Your task to perform on an android device: Go to settings Image 0: 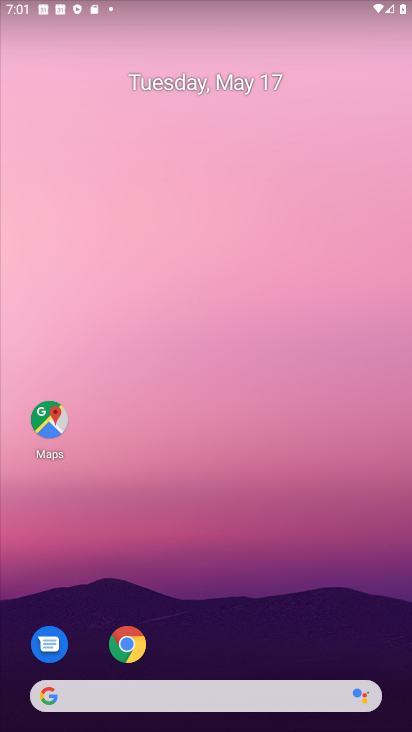
Step 0: drag from (307, 608) to (312, 31)
Your task to perform on an android device: Go to settings Image 1: 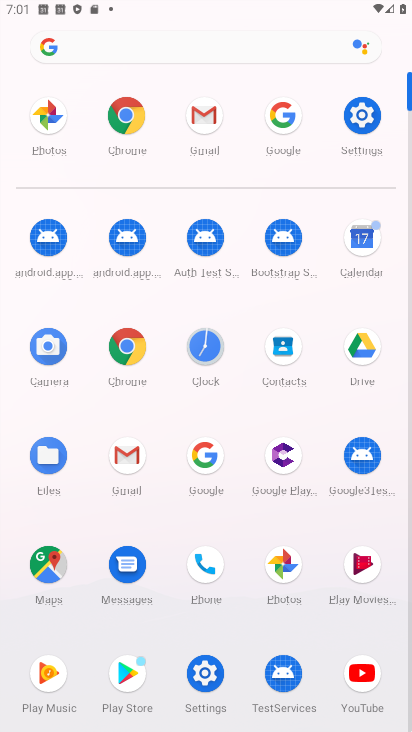
Step 1: click (218, 676)
Your task to perform on an android device: Go to settings Image 2: 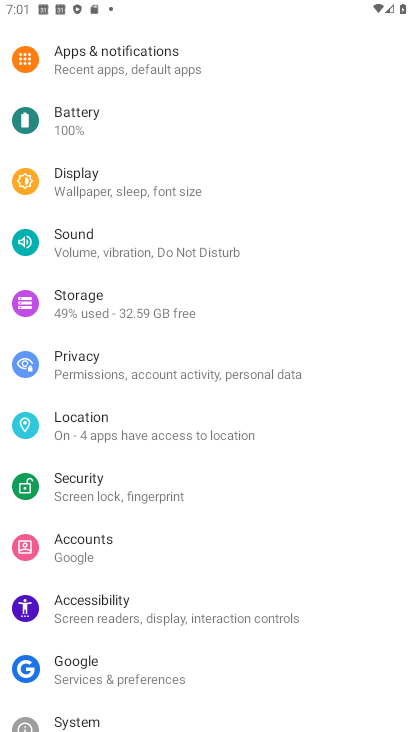
Step 2: task complete